Your task to perform on an android device: Go to display settings Image 0: 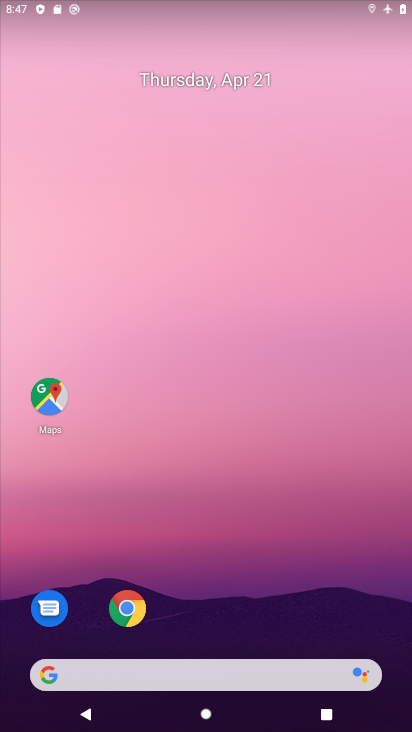
Step 0: drag from (246, 555) to (244, 96)
Your task to perform on an android device: Go to display settings Image 1: 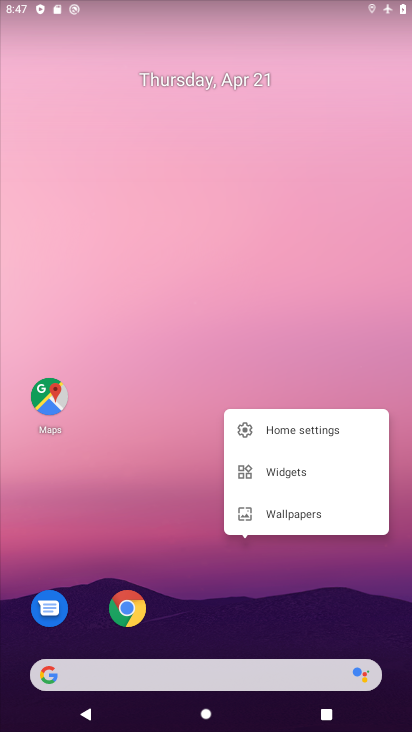
Step 1: click (162, 510)
Your task to perform on an android device: Go to display settings Image 2: 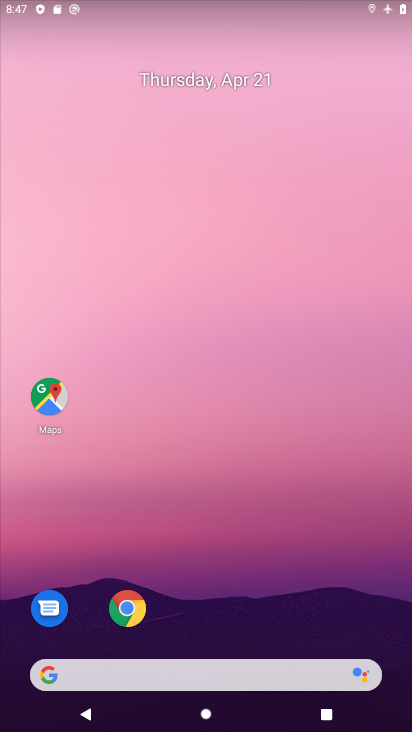
Step 2: drag from (243, 606) to (212, 4)
Your task to perform on an android device: Go to display settings Image 3: 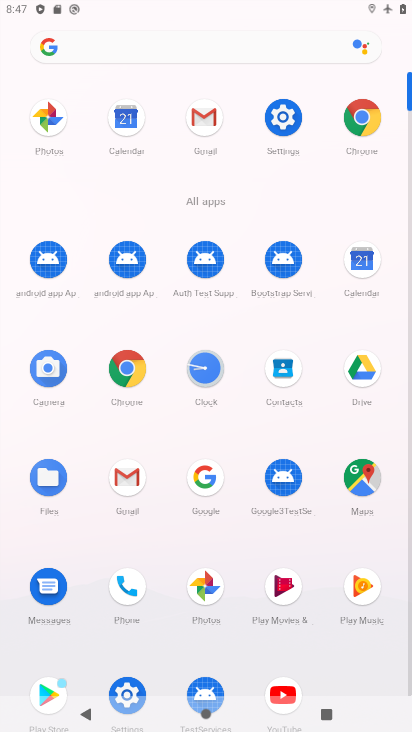
Step 3: click (278, 120)
Your task to perform on an android device: Go to display settings Image 4: 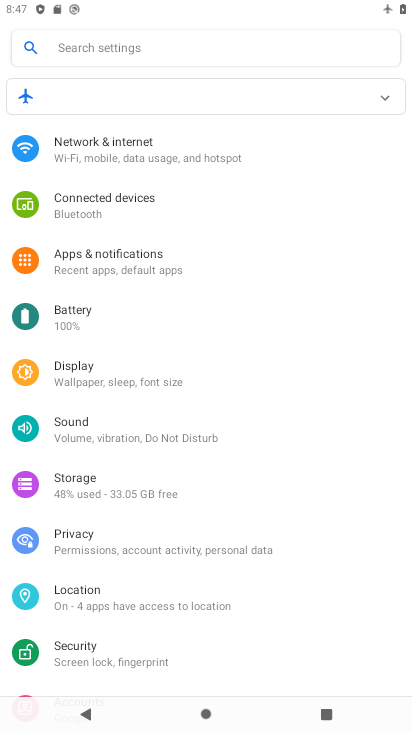
Step 4: click (73, 366)
Your task to perform on an android device: Go to display settings Image 5: 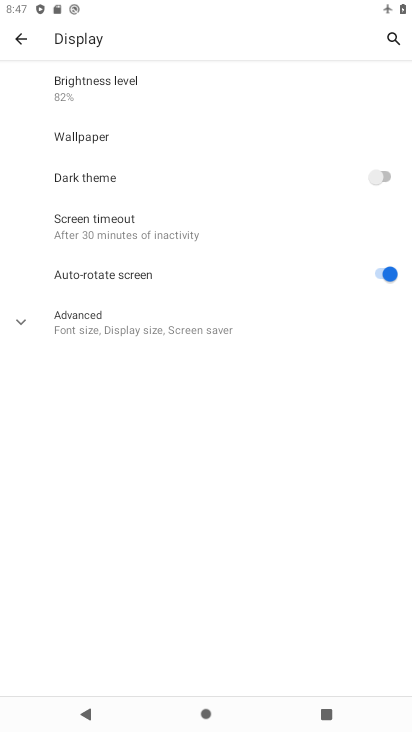
Step 5: task complete